Your task to perform on an android device: find snoozed emails in the gmail app Image 0: 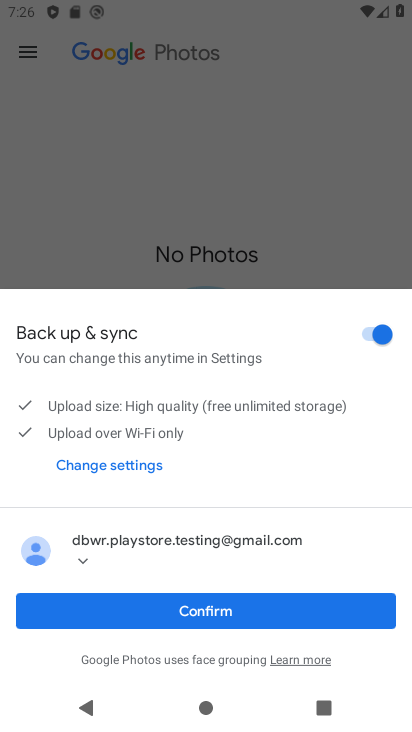
Step 0: press home button
Your task to perform on an android device: find snoozed emails in the gmail app Image 1: 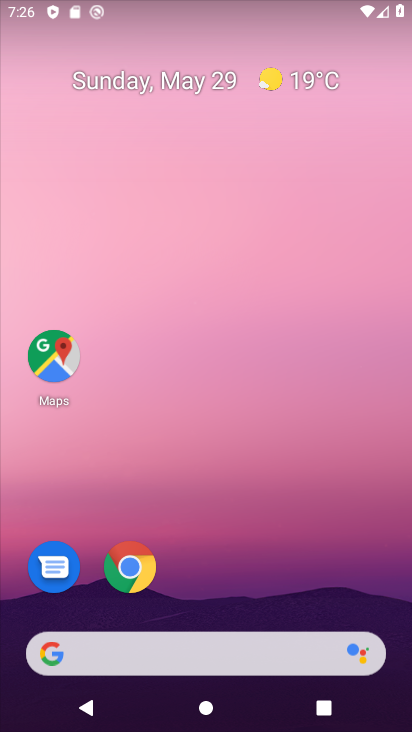
Step 1: drag from (411, 463) to (379, 282)
Your task to perform on an android device: find snoozed emails in the gmail app Image 2: 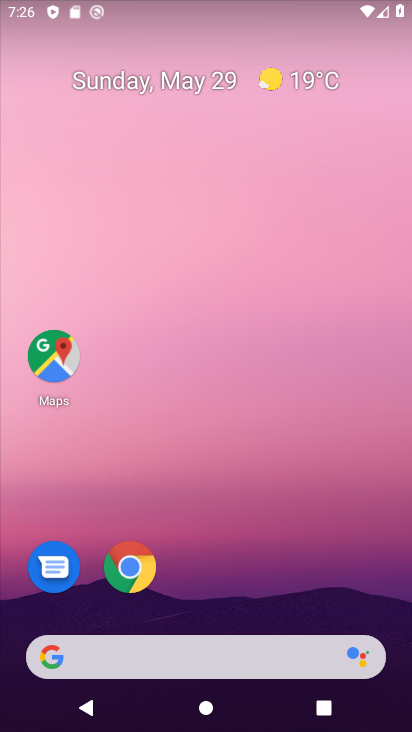
Step 2: drag from (389, 695) to (387, 38)
Your task to perform on an android device: find snoozed emails in the gmail app Image 3: 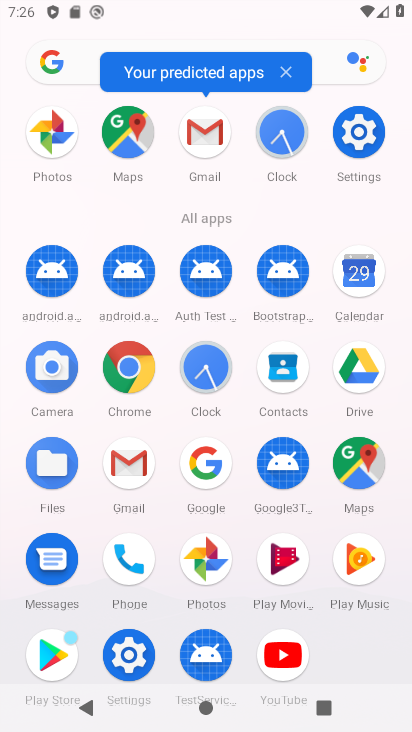
Step 3: click (217, 139)
Your task to perform on an android device: find snoozed emails in the gmail app Image 4: 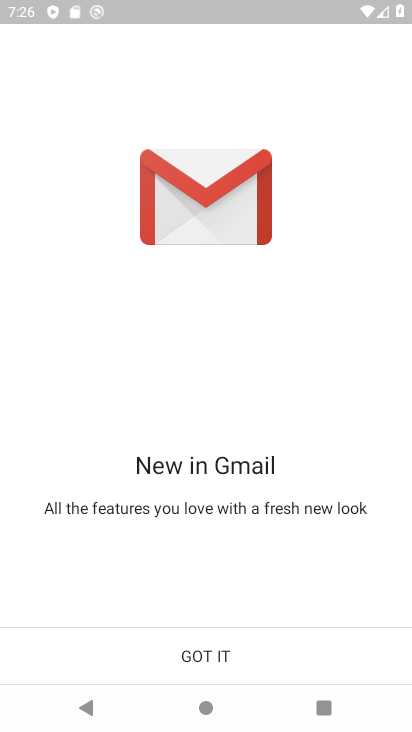
Step 4: click (198, 648)
Your task to perform on an android device: find snoozed emails in the gmail app Image 5: 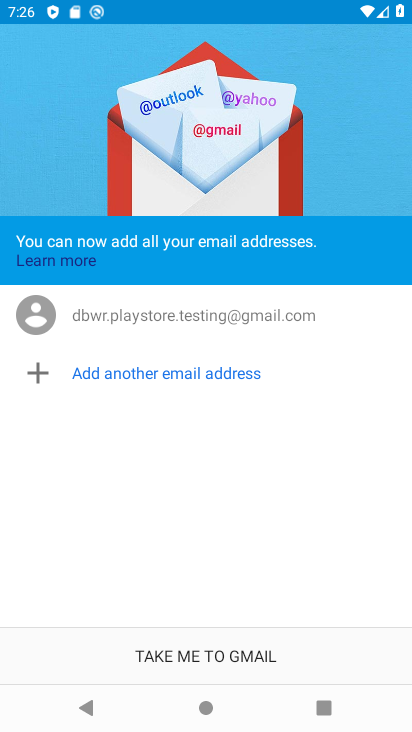
Step 5: click (198, 648)
Your task to perform on an android device: find snoozed emails in the gmail app Image 6: 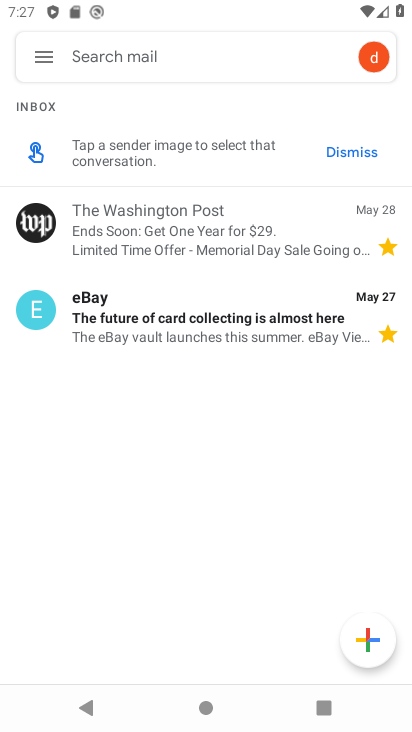
Step 6: click (36, 56)
Your task to perform on an android device: find snoozed emails in the gmail app Image 7: 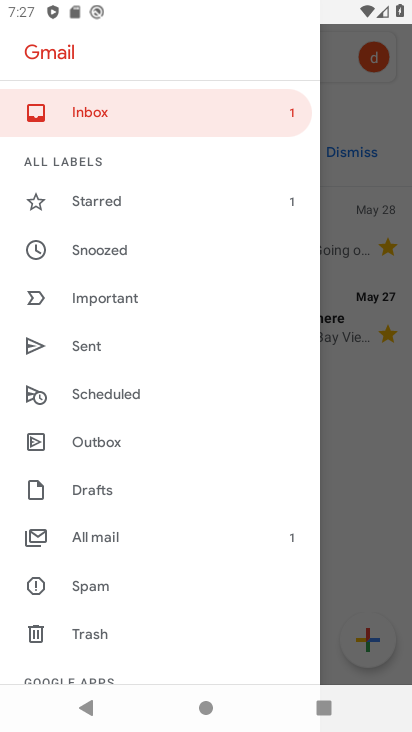
Step 7: click (102, 248)
Your task to perform on an android device: find snoozed emails in the gmail app Image 8: 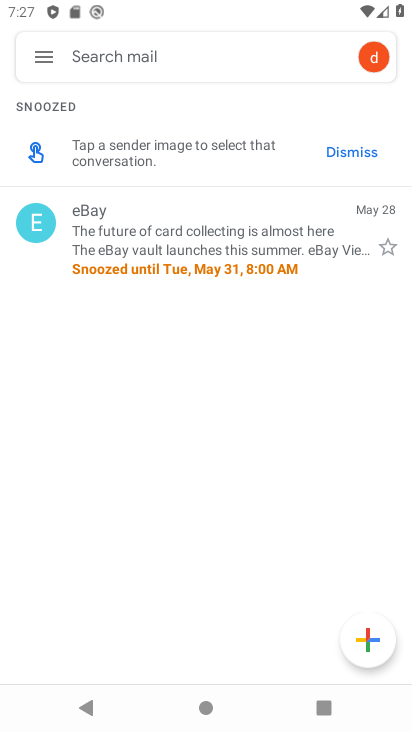
Step 8: task complete